Your task to perform on an android device: Search for seafood restaurants on Google Maps Image 0: 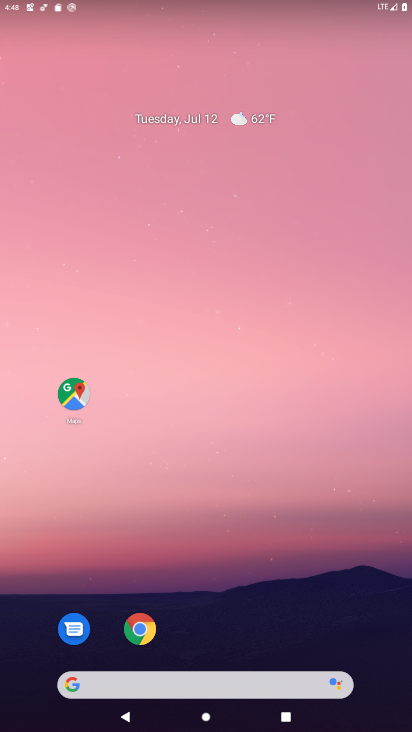
Step 0: drag from (281, 552) to (229, 158)
Your task to perform on an android device: Search for seafood restaurants on Google Maps Image 1: 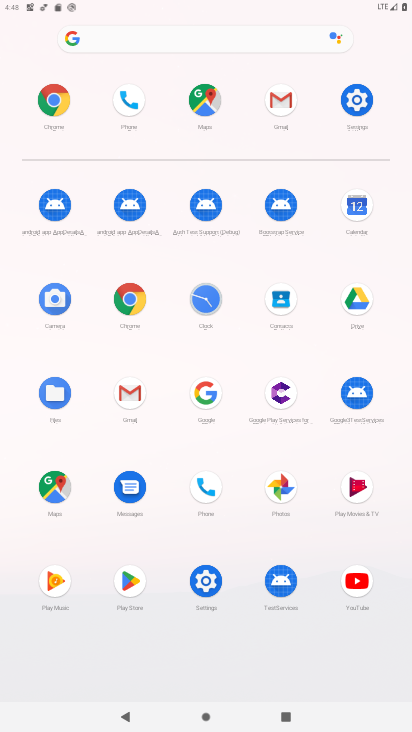
Step 1: click (49, 484)
Your task to perform on an android device: Search for seafood restaurants on Google Maps Image 2: 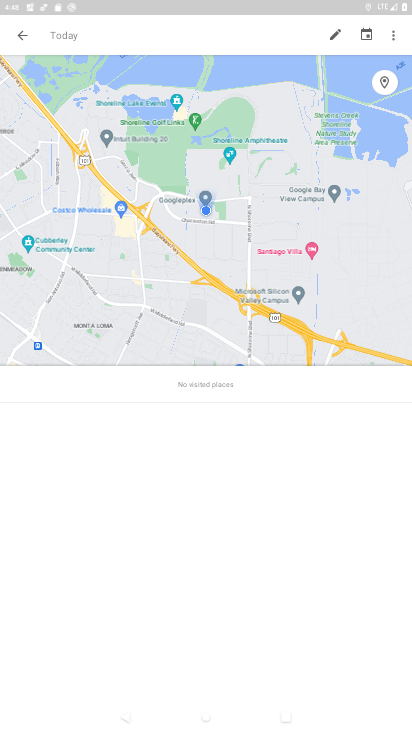
Step 2: click (15, 26)
Your task to perform on an android device: Search for seafood restaurants on Google Maps Image 3: 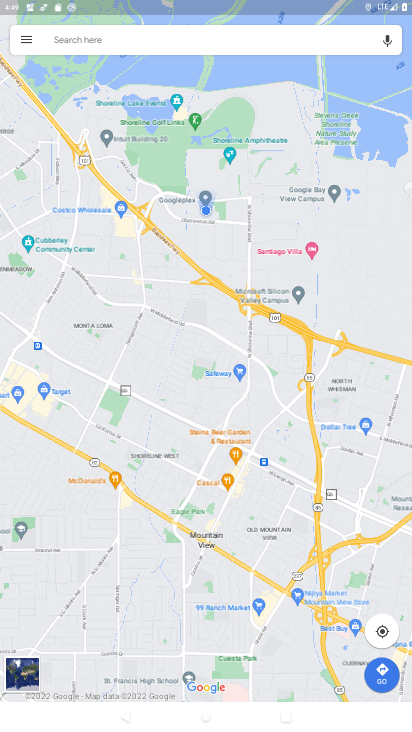
Step 3: click (102, 40)
Your task to perform on an android device: Search for seafood restaurants on Google Maps Image 4: 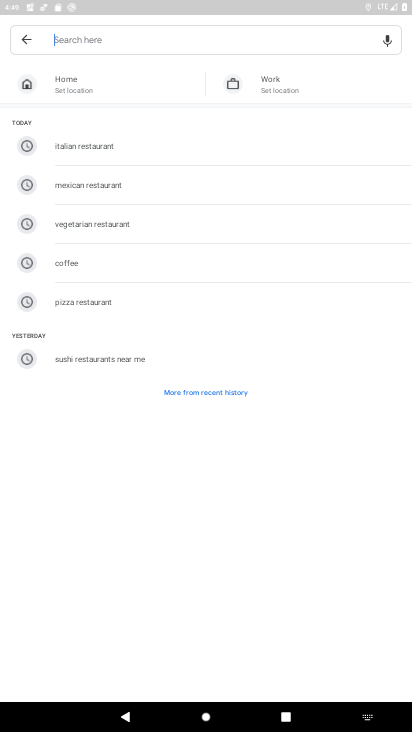
Step 4: type "seafood restaurant"
Your task to perform on an android device: Search for seafood restaurants on Google Maps Image 5: 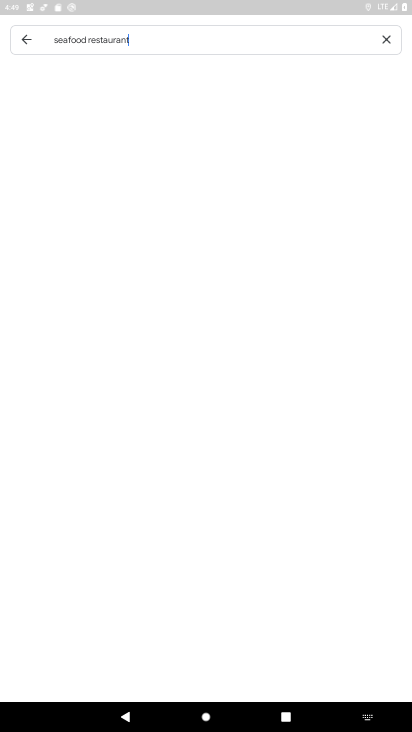
Step 5: press enter
Your task to perform on an android device: Search for seafood restaurants on Google Maps Image 6: 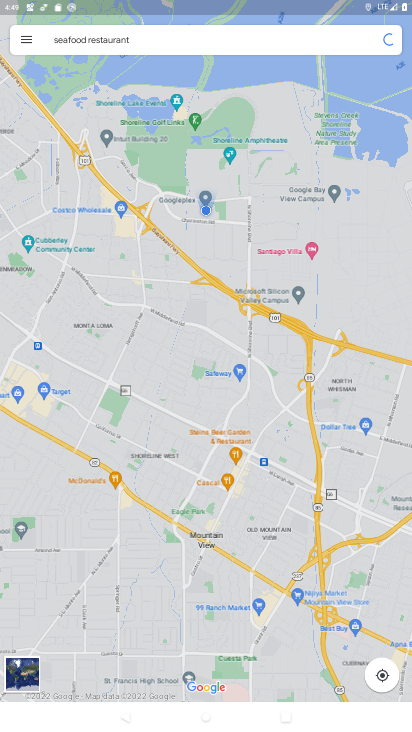
Step 6: task complete